Your task to perform on an android device: open a bookmark in the chrome app Image 0: 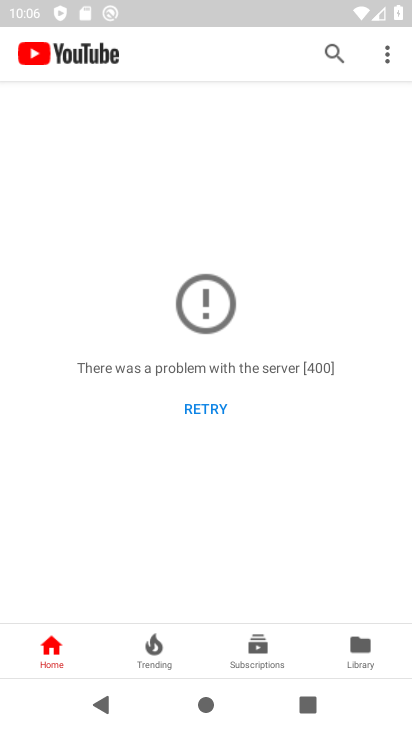
Step 0: press back button
Your task to perform on an android device: open a bookmark in the chrome app Image 1: 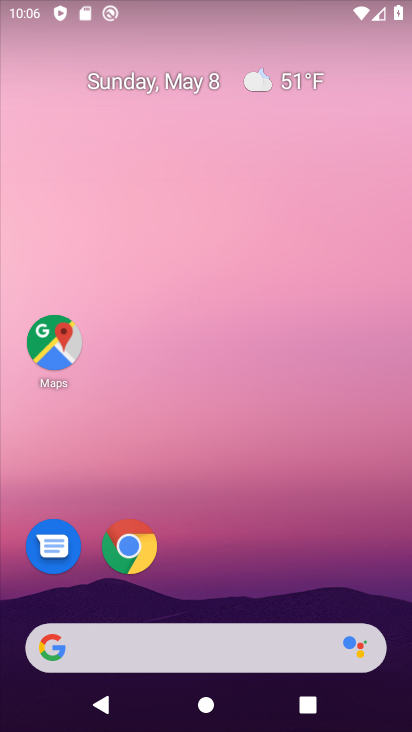
Step 1: click (129, 543)
Your task to perform on an android device: open a bookmark in the chrome app Image 2: 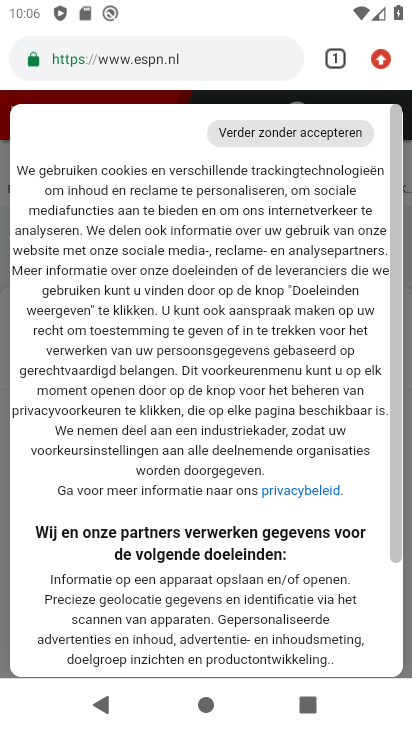
Step 2: click (380, 58)
Your task to perform on an android device: open a bookmark in the chrome app Image 3: 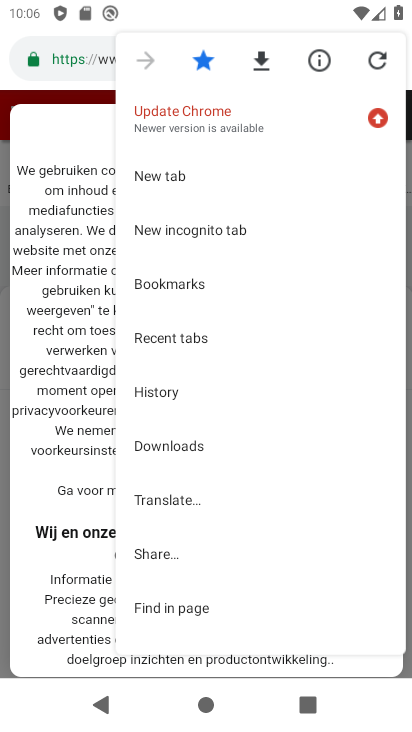
Step 3: click (190, 285)
Your task to perform on an android device: open a bookmark in the chrome app Image 4: 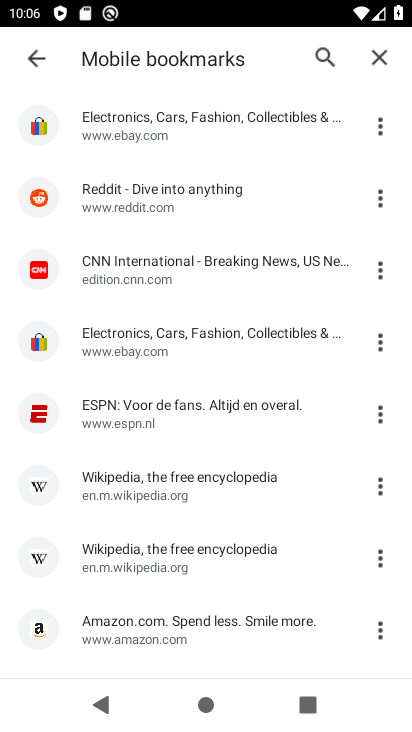
Step 4: task complete